Your task to perform on an android device: turn off location history Image 0: 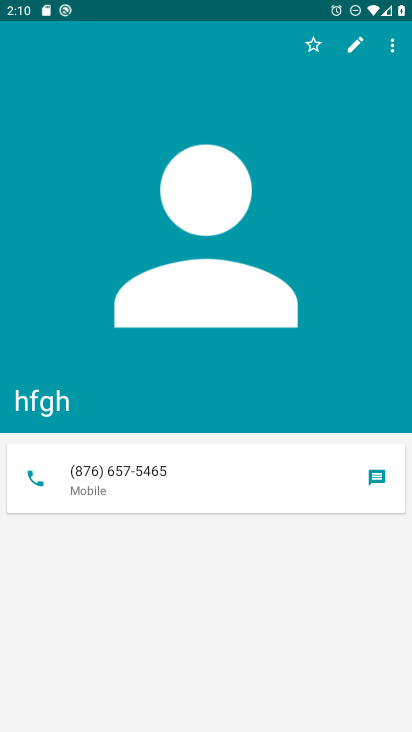
Step 0: press home button
Your task to perform on an android device: turn off location history Image 1: 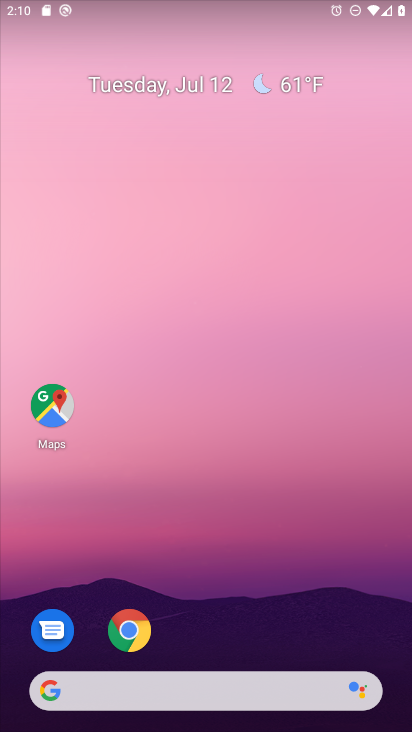
Step 1: drag from (205, 292) to (213, 228)
Your task to perform on an android device: turn off location history Image 2: 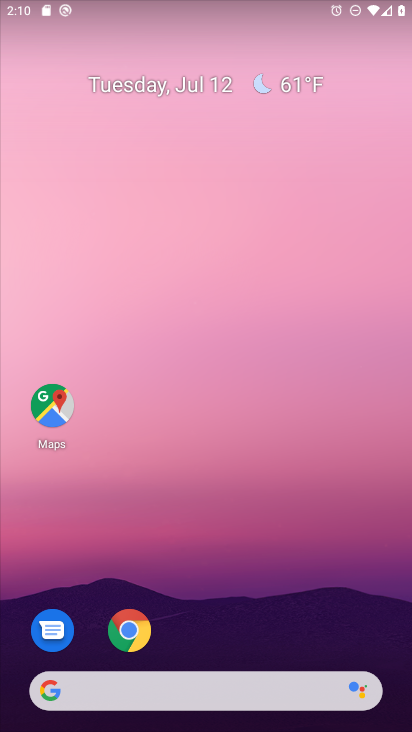
Step 2: drag from (214, 639) to (193, 147)
Your task to perform on an android device: turn off location history Image 3: 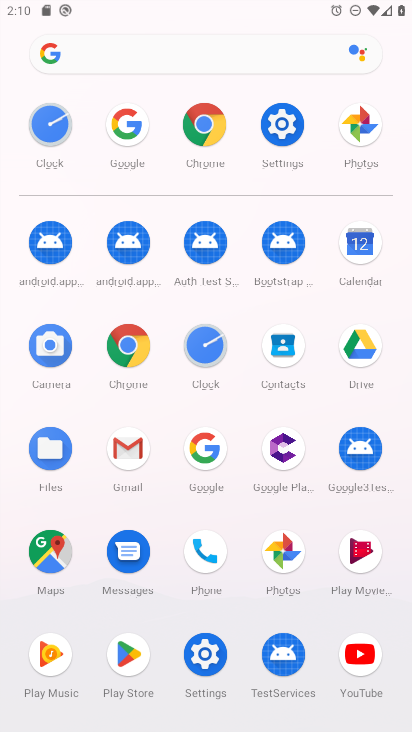
Step 3: click (303, 145)
Your task to perform on an android device: turn off location history Image 4: 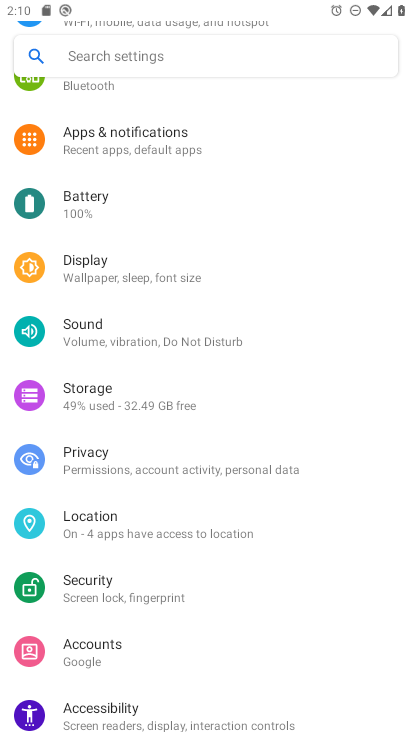
Step 4: click (196, 515)
Your task to perform on an android device: turn off location history Image 5: 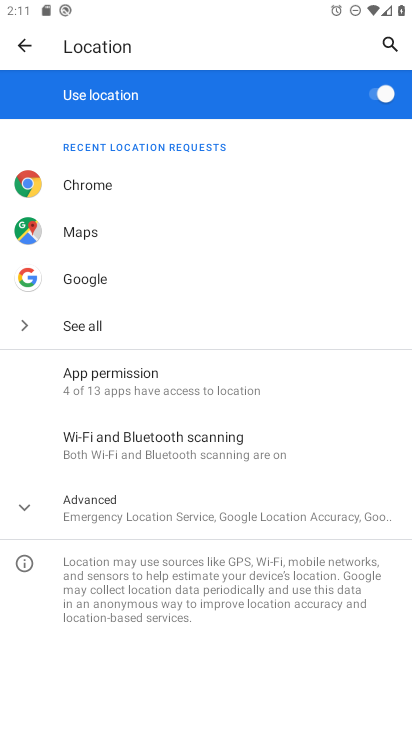
Step 5: click (178, 514)
Your task to perform on an android device: turn off location history Image 6: 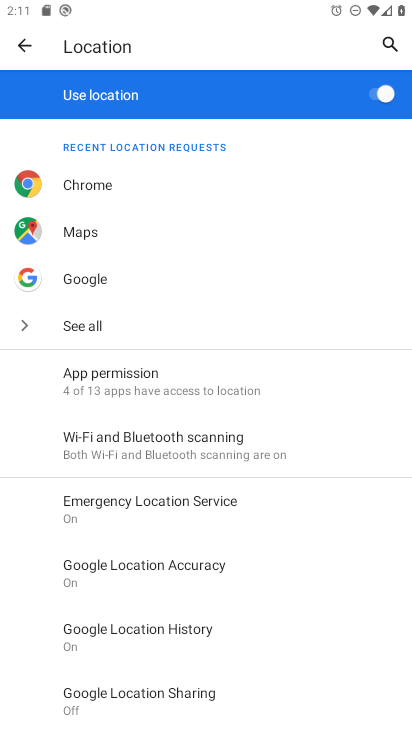
Step 6: click (201, 634)
Your task to perform on an android device: turn off location history Image 7: 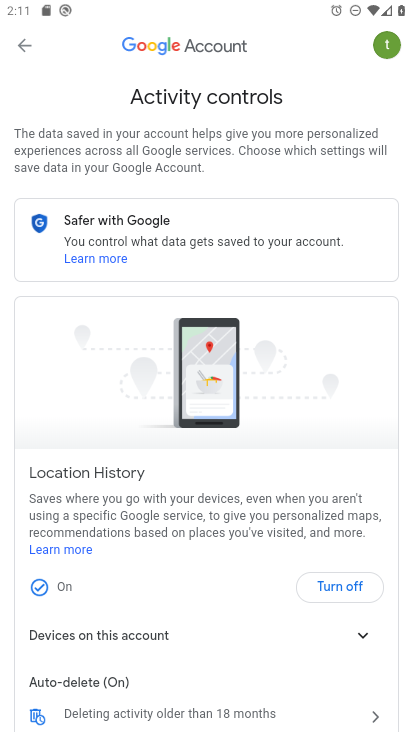
Step 7: click (351, 588)
Your task to perform on an android device: turn off location history Image 8: 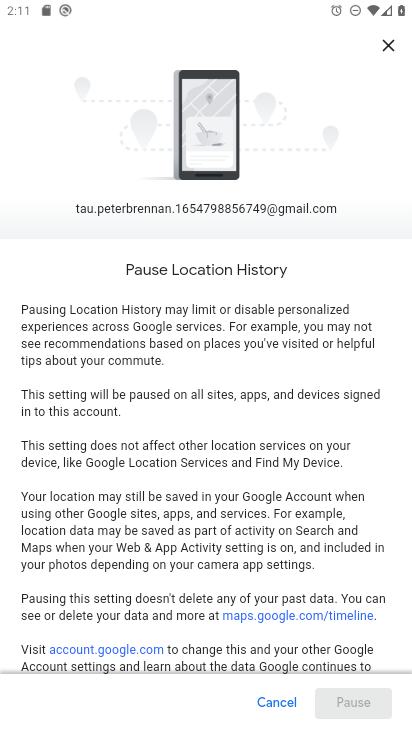
Step 8: drag from (296, 593) to (291, 35)
Your task to perform on an android device: turn off location history Image 9: 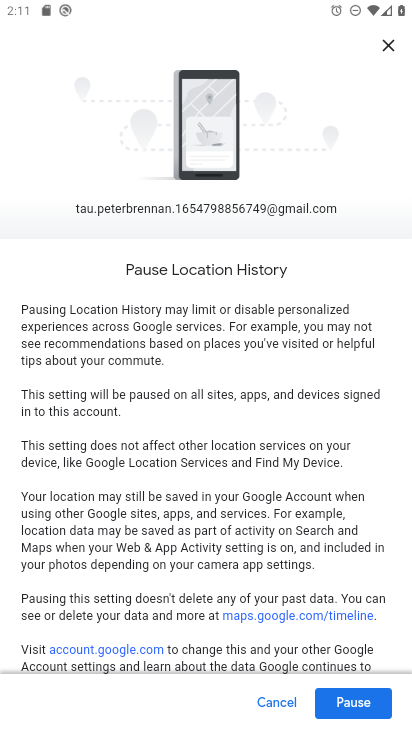
Step 9: click (355, 705)
Your task to perform on an android device: turn off location history Image 10: 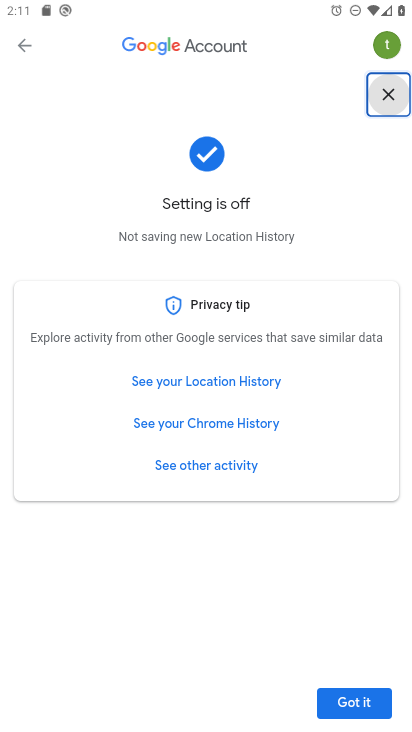
Step 10: task complete